Your task to perform on an android device: turn off priority inbox in the gmail app Image 0: 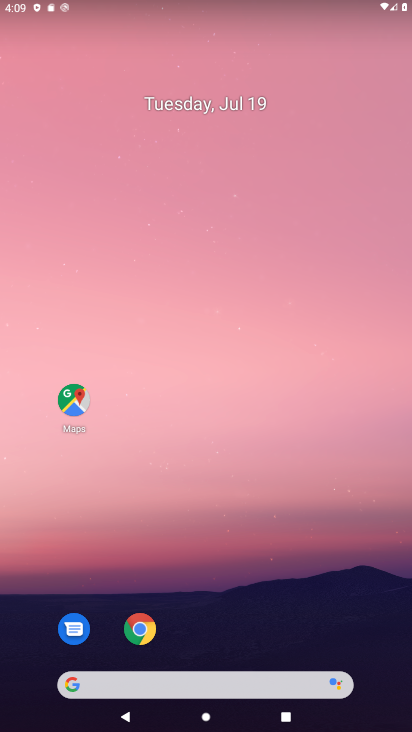
Step 0: drag from (199, 461) to (206, 286)
Your task to perform on an android device: turn off priority inbox in the gmail app Image 1: 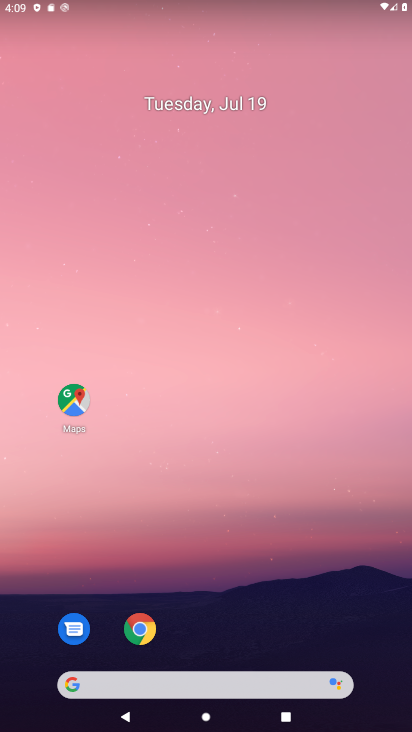
Step 1: drag from (232, 655) to (228, 335)
Your task to perform on an android device: turn off priority inbox in the gmail app Image 2: 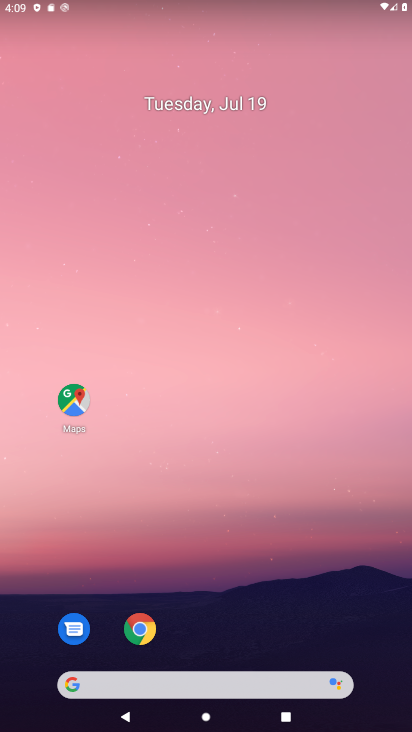
Step 2: drag from (159, 665) to (255, 120)
Your task to perform on an android device: turn off priority inbox in the gmail app Image 3: 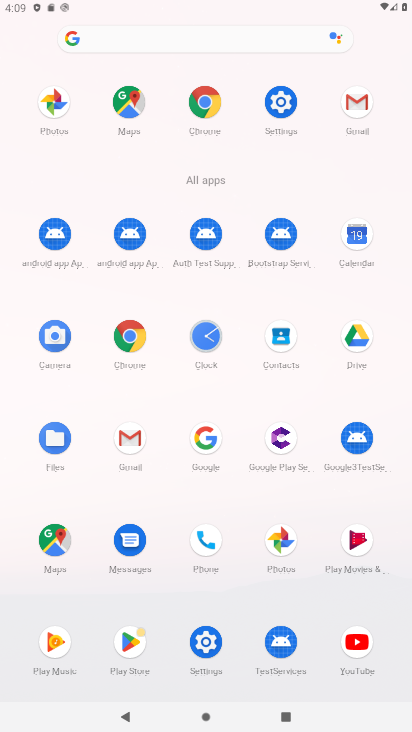
Step 3: click (364, 101)
Your task to perform on an android device: turn off priority inbox in the gmail app Image 4: 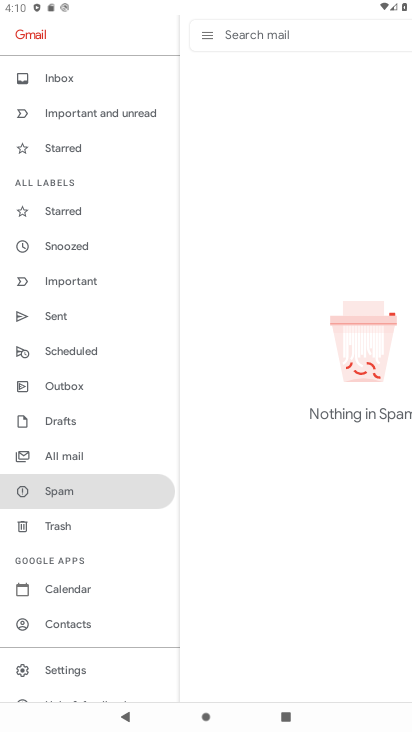
Step 4: click (68, 668)
Your task to perform on an android device: turn off priority inbox in the gmail app Image 5: 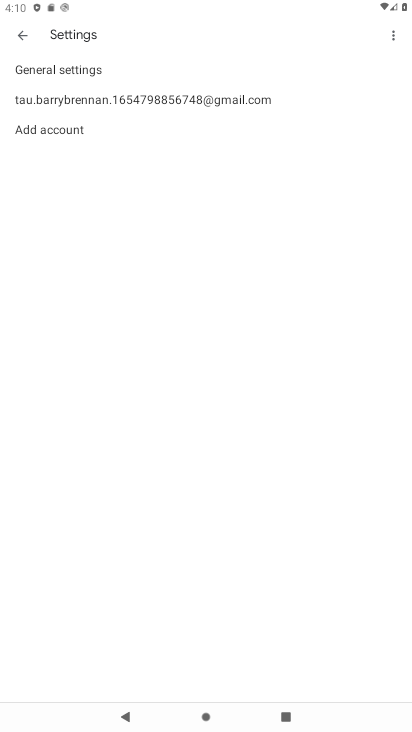
Step 5: click (93, 97)
Your task to perform on an android device: turn off priority inbox in the gmail app Image 6: 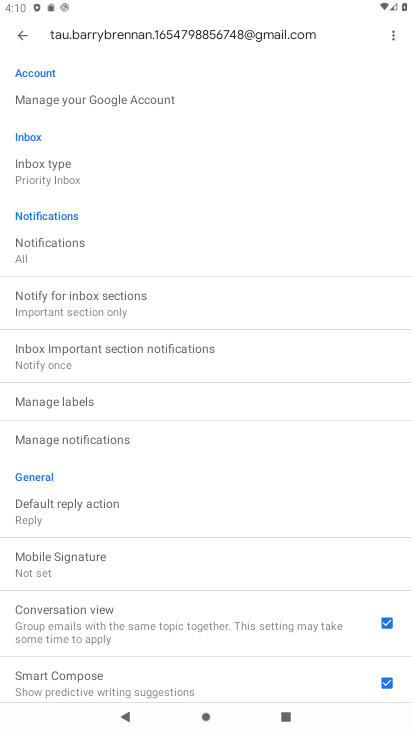
Step 6: click (39, 170)
Your task to perform on an android device: turn off priority inbox in the gmail app Image 7: 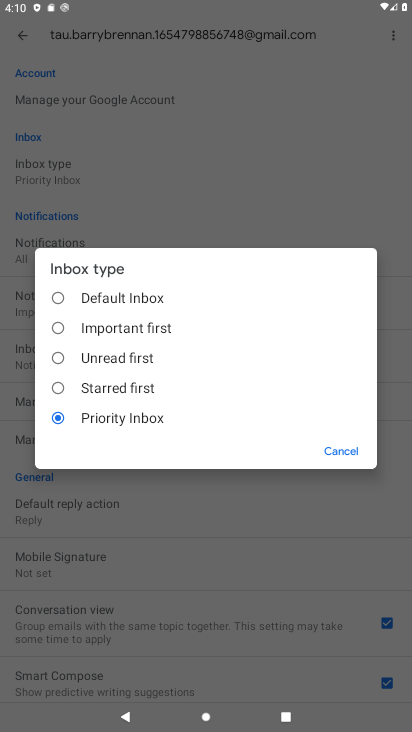
Step 7: click (120, 329)
Your task to perform on an android device: turn off priority inbox in the gmail app Image 8: 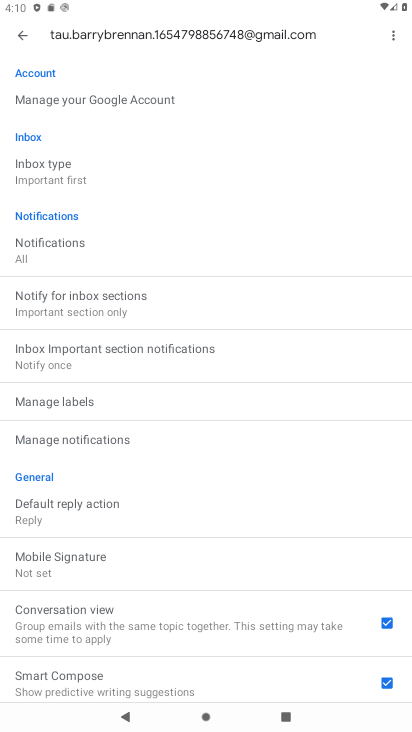
Step 8: task complete